Your task to perform on an android device: What's a good restaurant in Portland? Image 0: 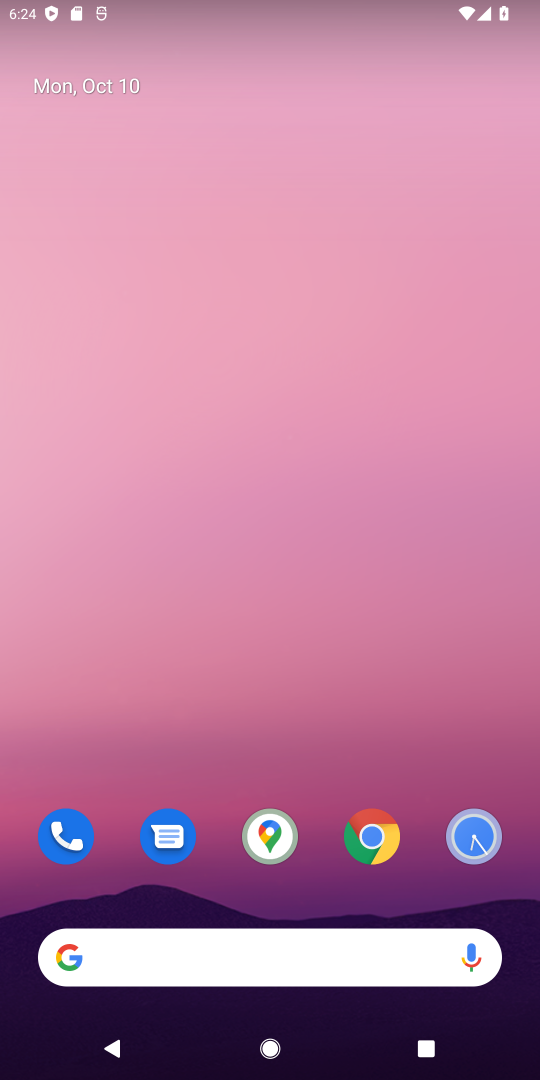
Step 0: click (371, 838)
Your task to perform on an android device: What's a good restaurant in Portland? Image 1: 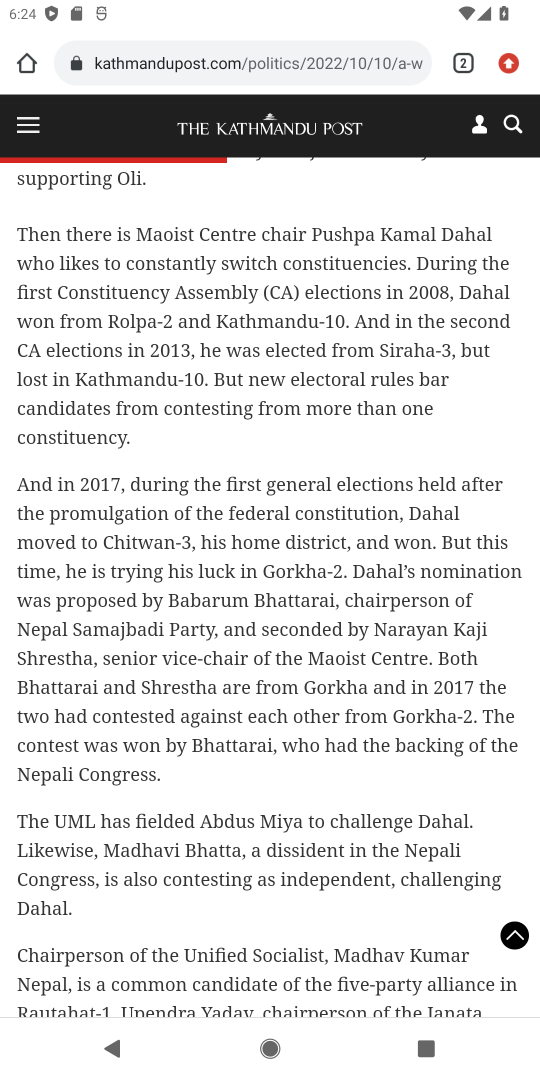
Step 1: click (228, 44)
Your task to perform on an android device: What's a good restaurant in Portland? Image 2: 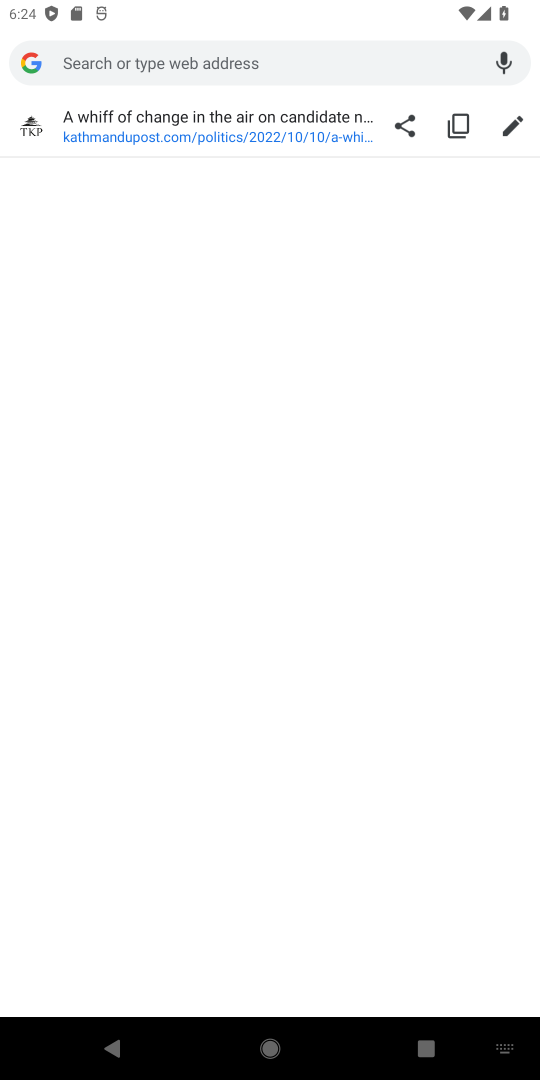
Step 2: type " good restaurant in Portland?"
Your task to perform on an android device: What's a good restaurant in Portland? Image 3: 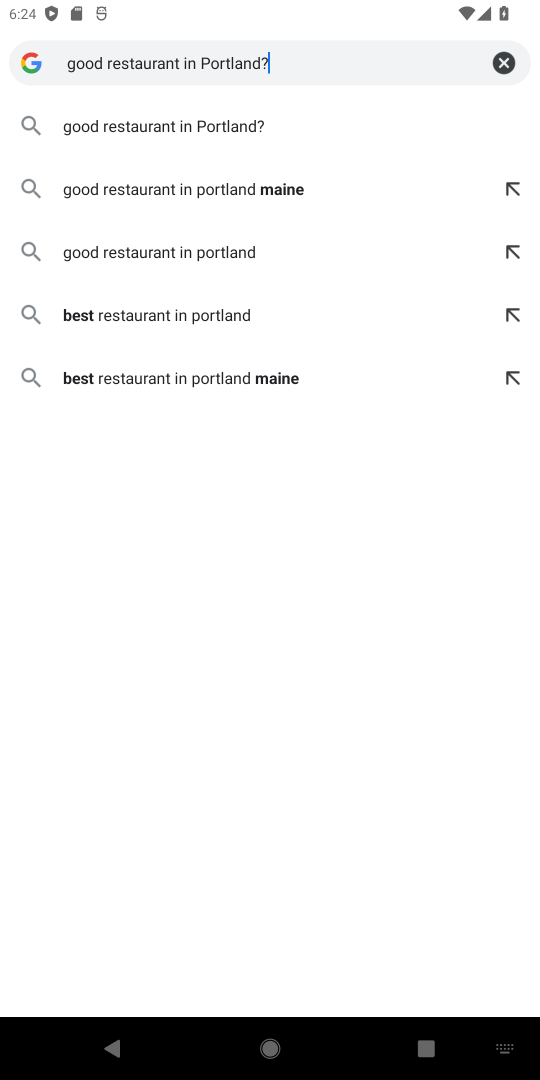
Step 3: click (125, 125)
Your task to perform on an android device: What's a good restaurant in Portland? Image 4: 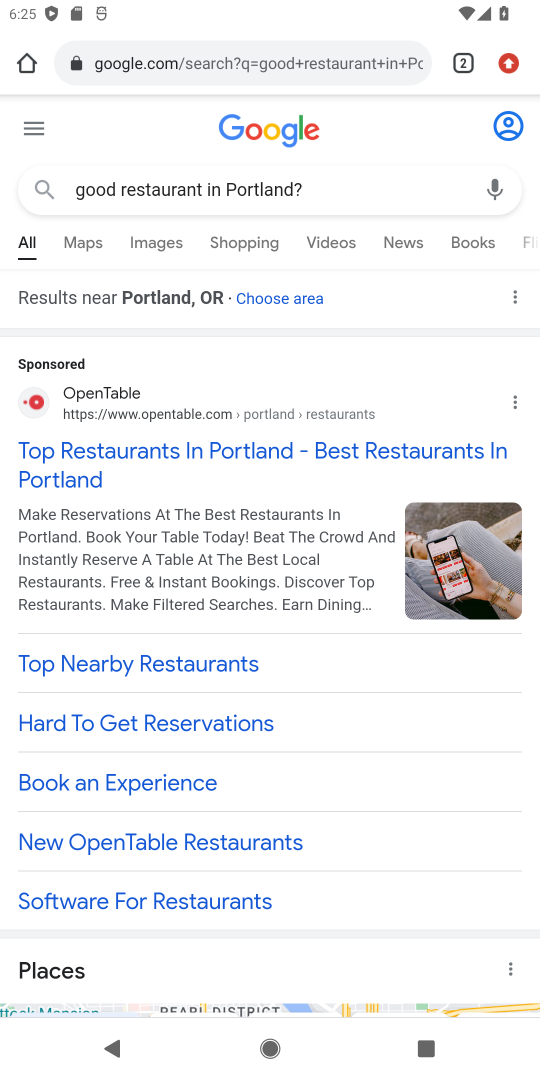
Step 4: click (107, 462)
Your task to perform on an android device: What's a good restaurant in Portland? Image 5: 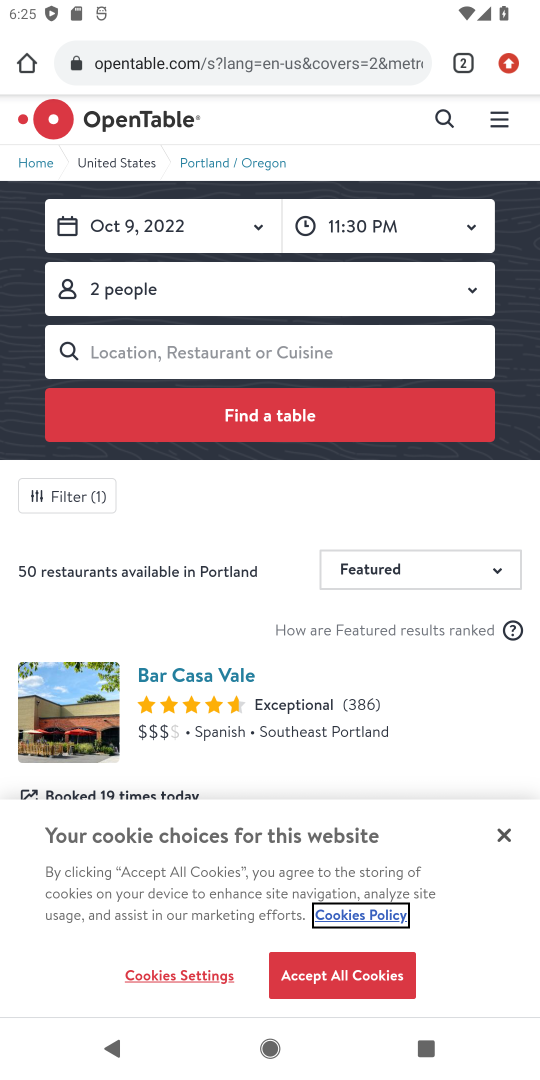
Step 5: click (306, 967)
Your task to perform on an android device: What's a good restaurant in Portland? Image 6: 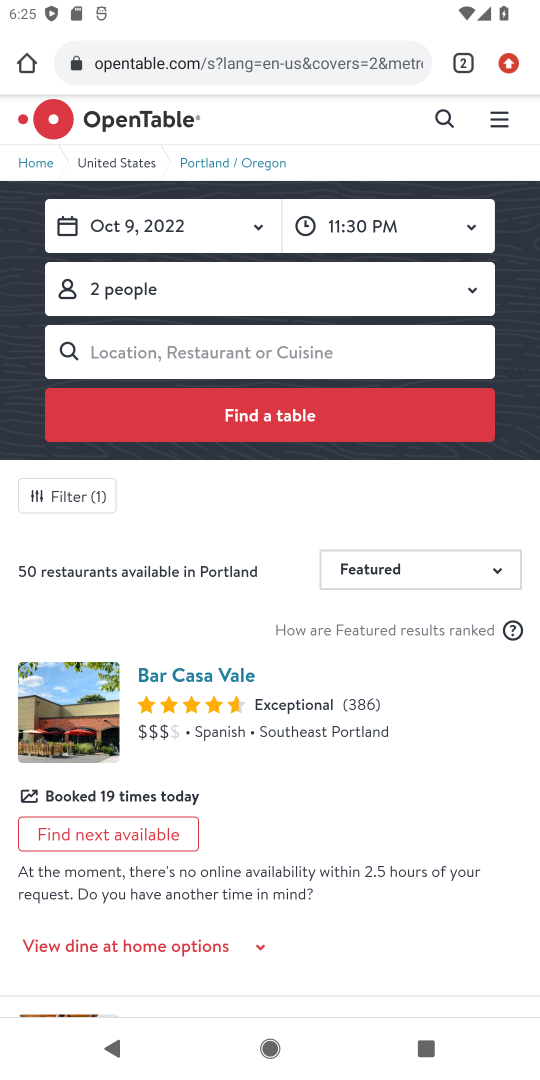
Step 6: task complete